Your task to perform on an android device: open app "Upside-Cash back on gas & food" (install if not already installed), go to login, and select forgot password Image 0: 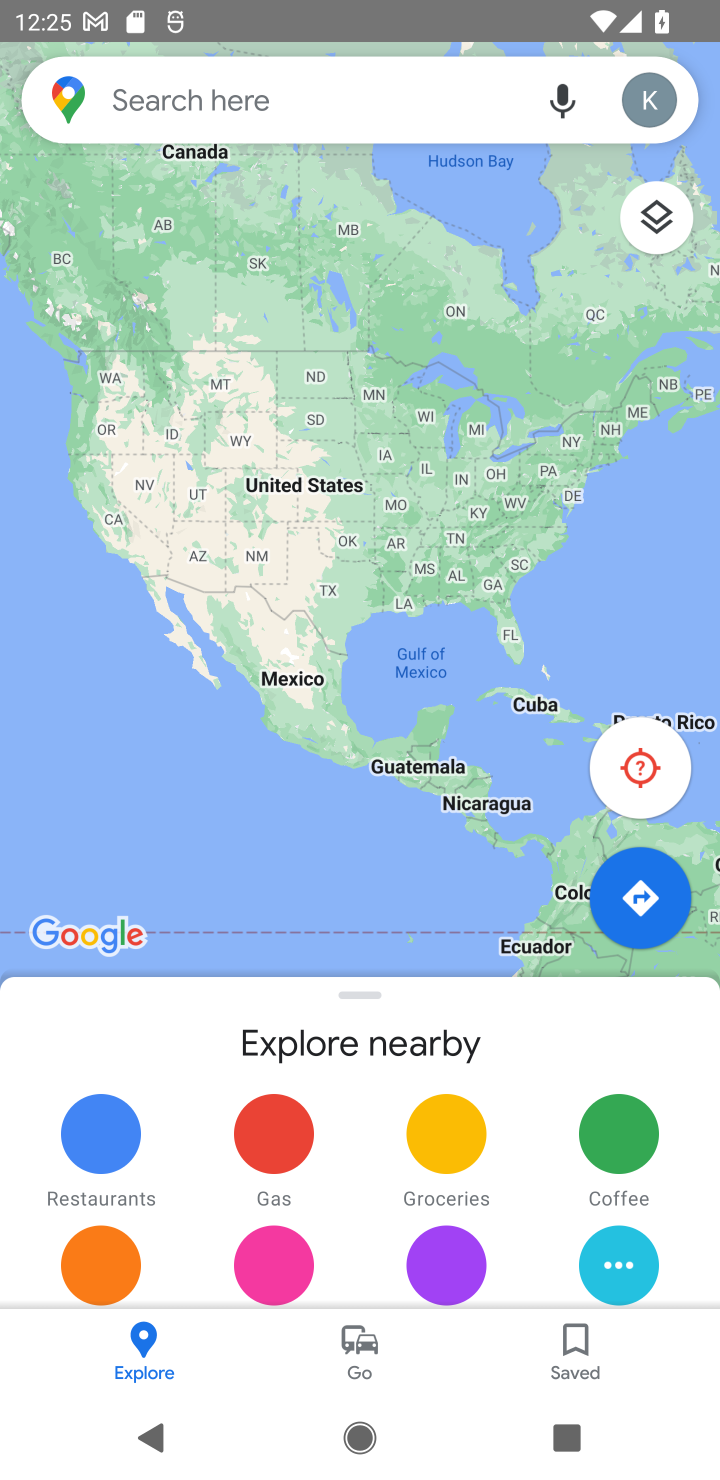
Step 0: press home button
Your task to perform on an android device: open app "Upside-Cash back on gas & food" (install if not already installed), go to login, and select forgot password Image 1: 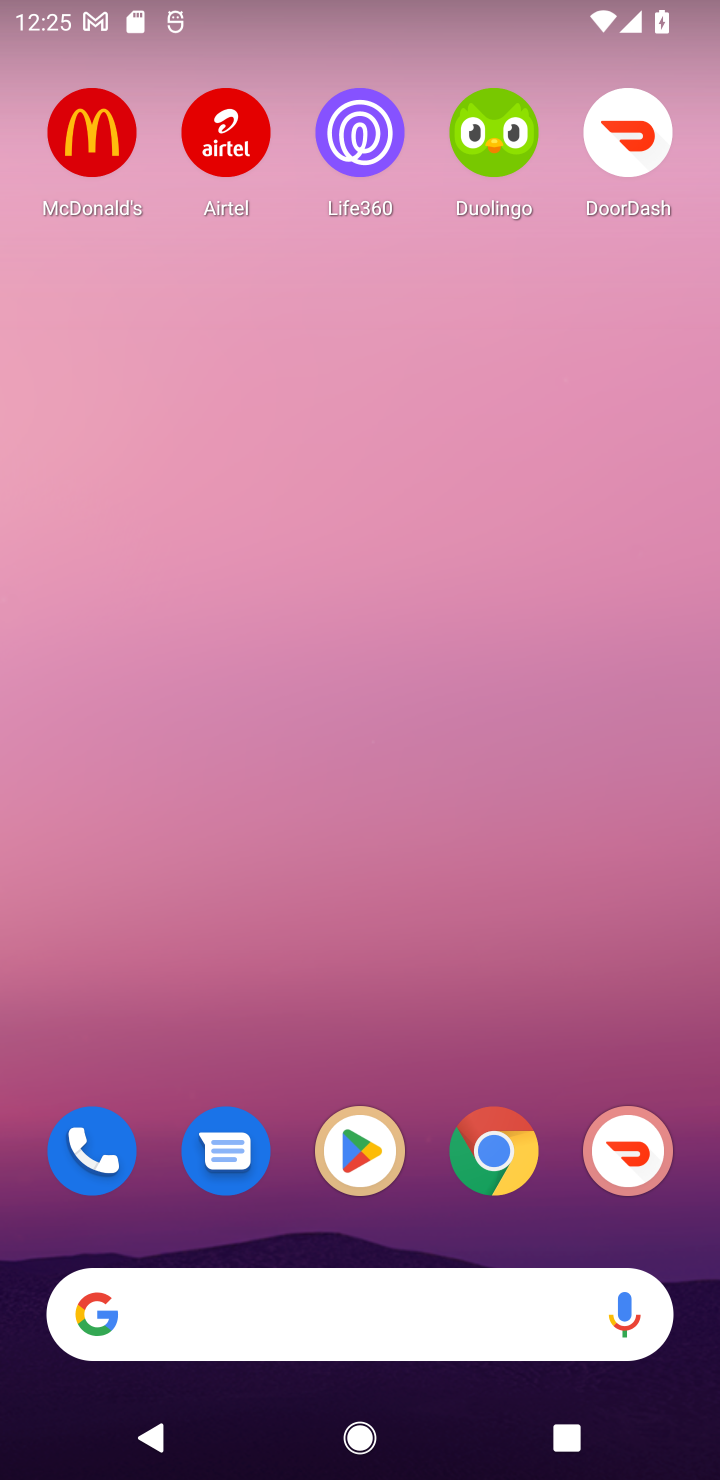
Step 1: click (356, 1153)
Your task to perform on an android device: open app "Upside-Cash back on gas & food" (install if not already installed), go to login, and select forgot password Image 2: 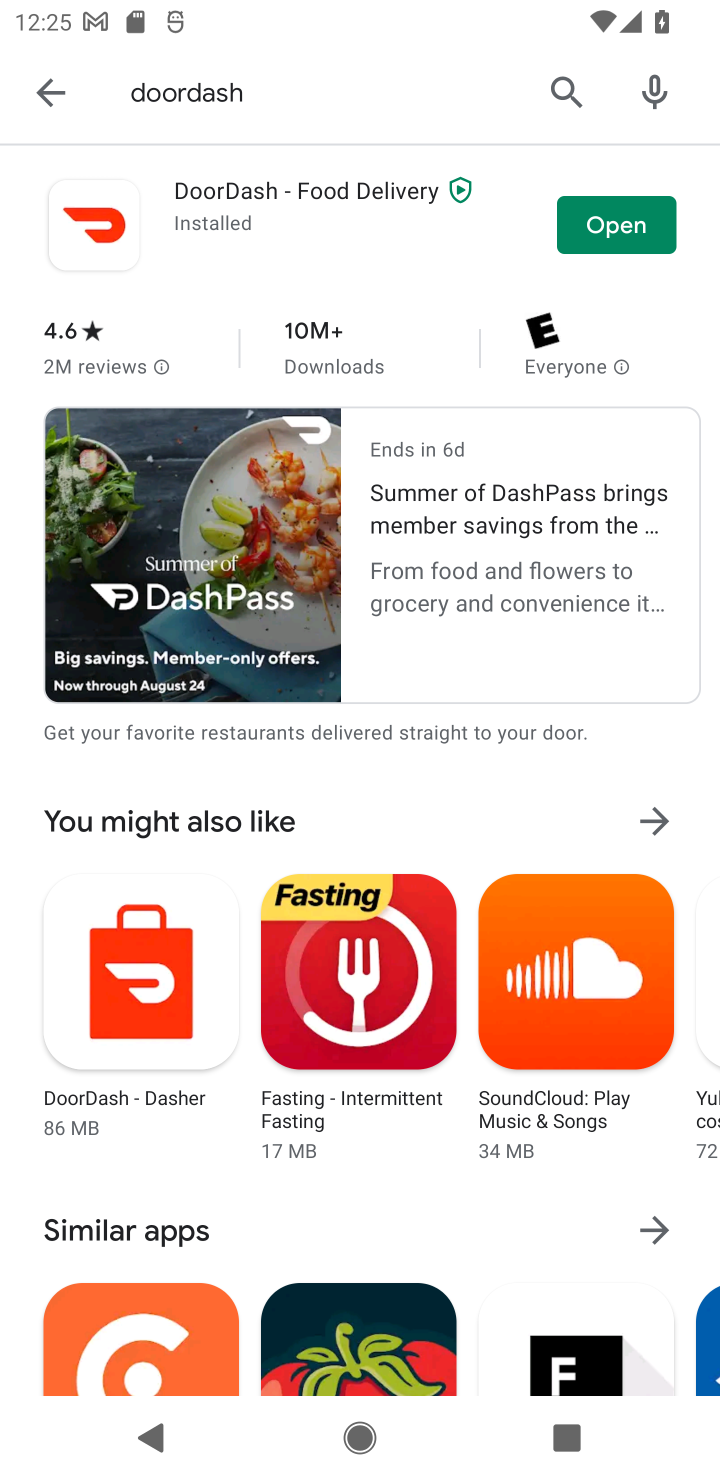
Step 2: click (40, 87)
Your task to perform on an android device: open app "Upside-Cash back on gas & food" (install if not already installed), go to login, and select forgot password Image 3: 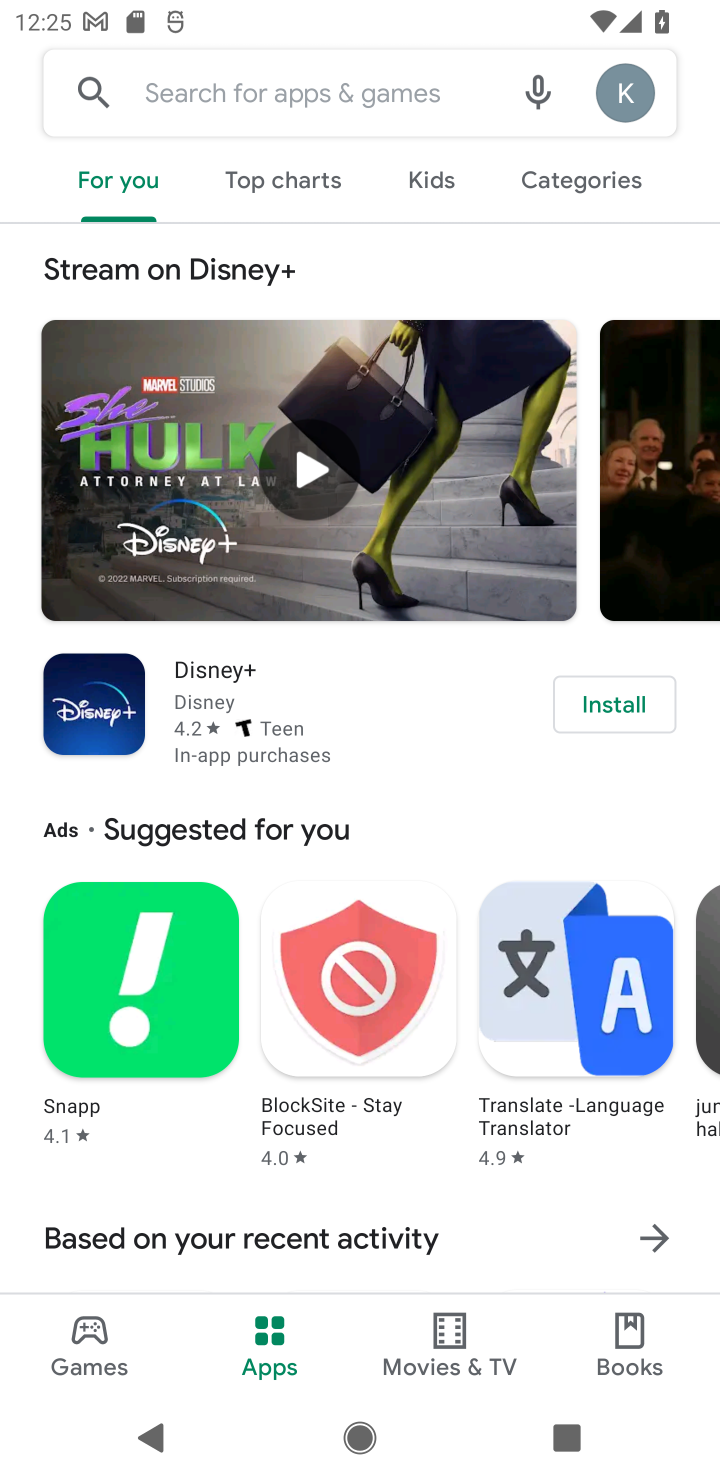
Step 3: click (224, 103)
Your task to perform on an android device: open app "Upside-Cash back on gas & food" (install if not already installed), go to login, and select forgot password Image 4: 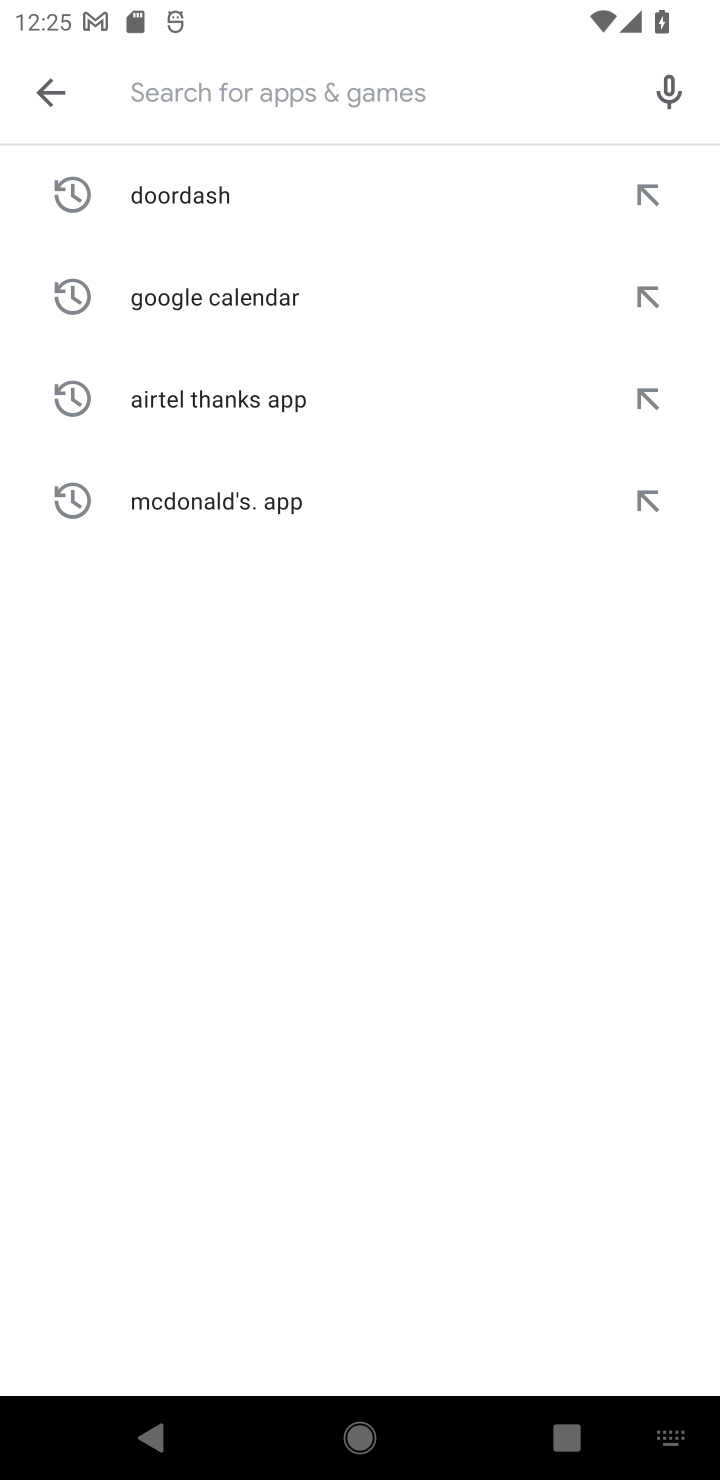
Step 4: type "Upside-Cash back on gas & food"
Your task to perform on an android device: open app "Upside-Cash back on gas & food" (install if not already installed), go to login, and select forgot password Image 5: 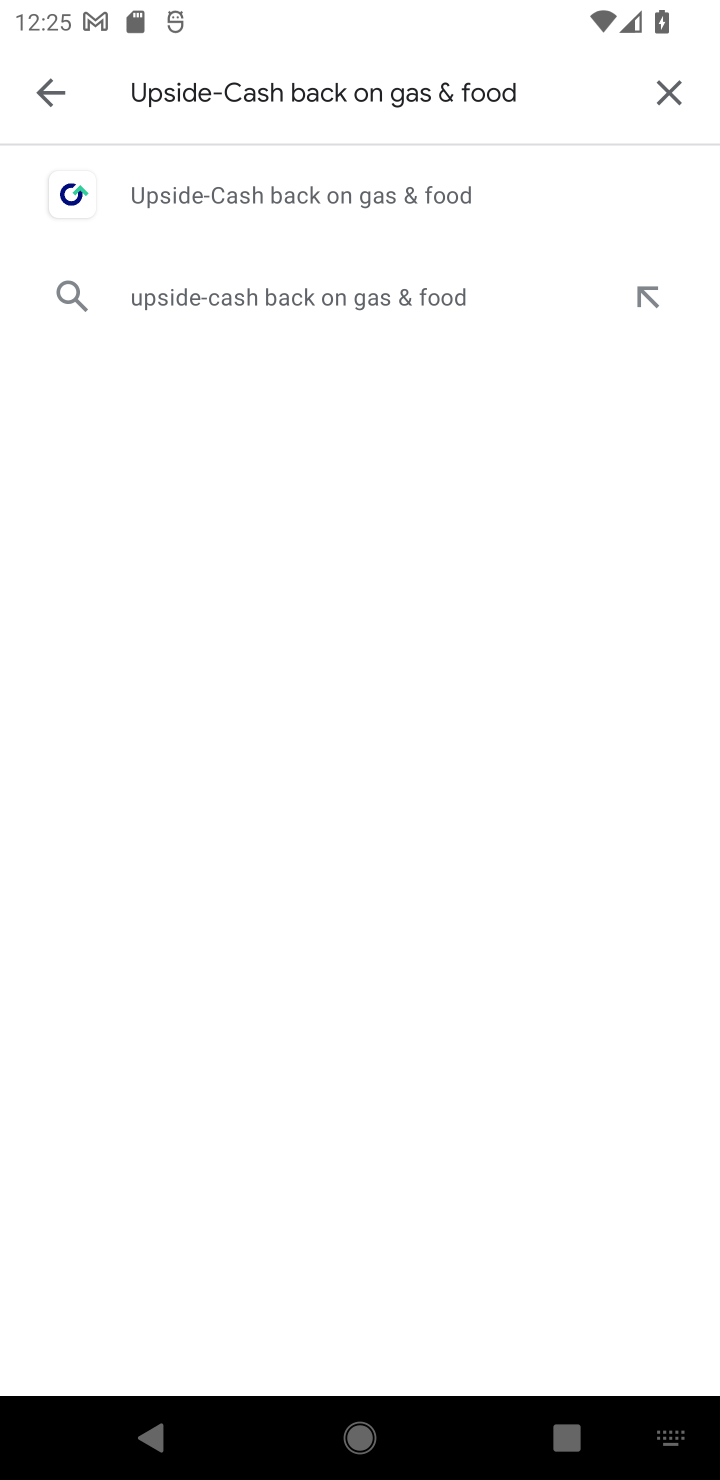
Step 5: click (339, 189)
Your task to perform on an android device: open app "Upside-Cash back on gas & food" (install if not already installed), go to login, and select forgot password Image 6: 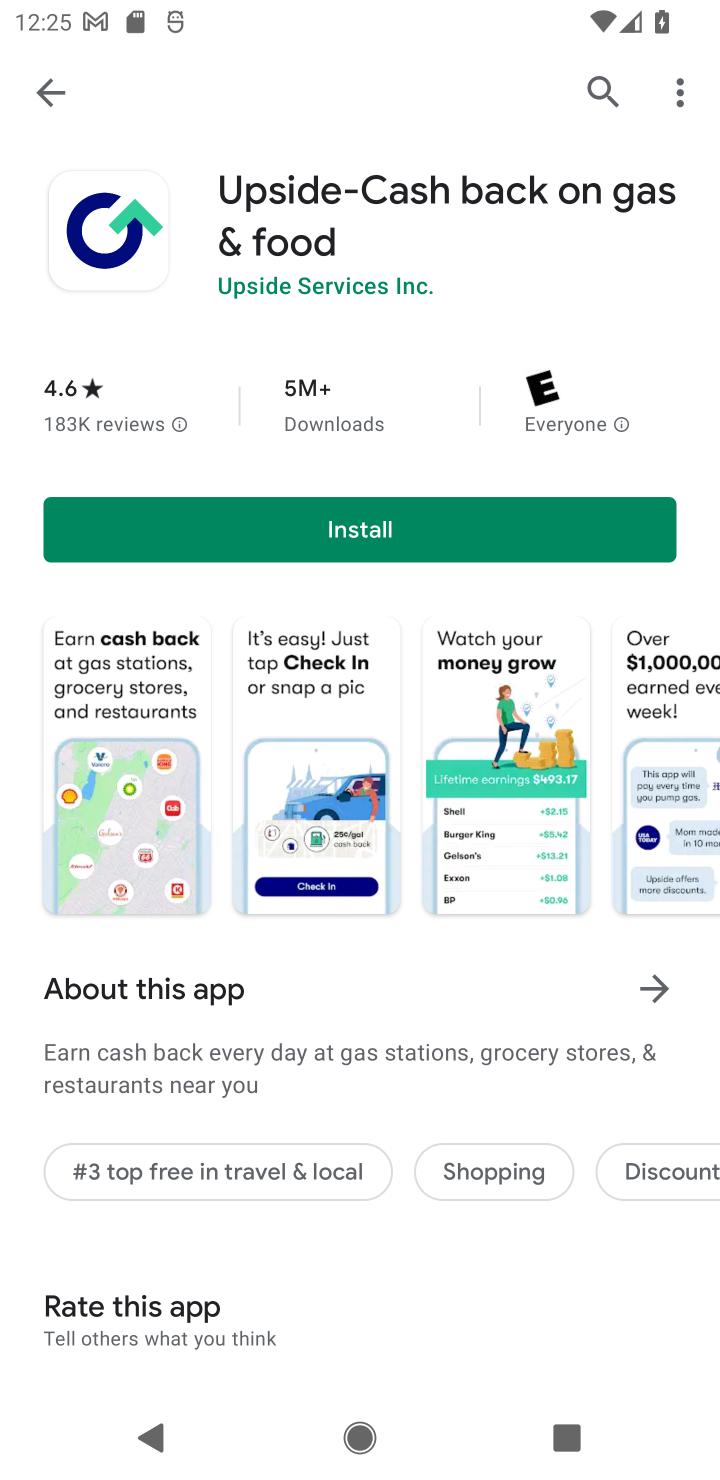
Step 6: click (352, 521)
Your task to perform on an android device: open app "Upside-Cash back on gas & food" (install if not already installed), go to login, and select forgot password Image 7: 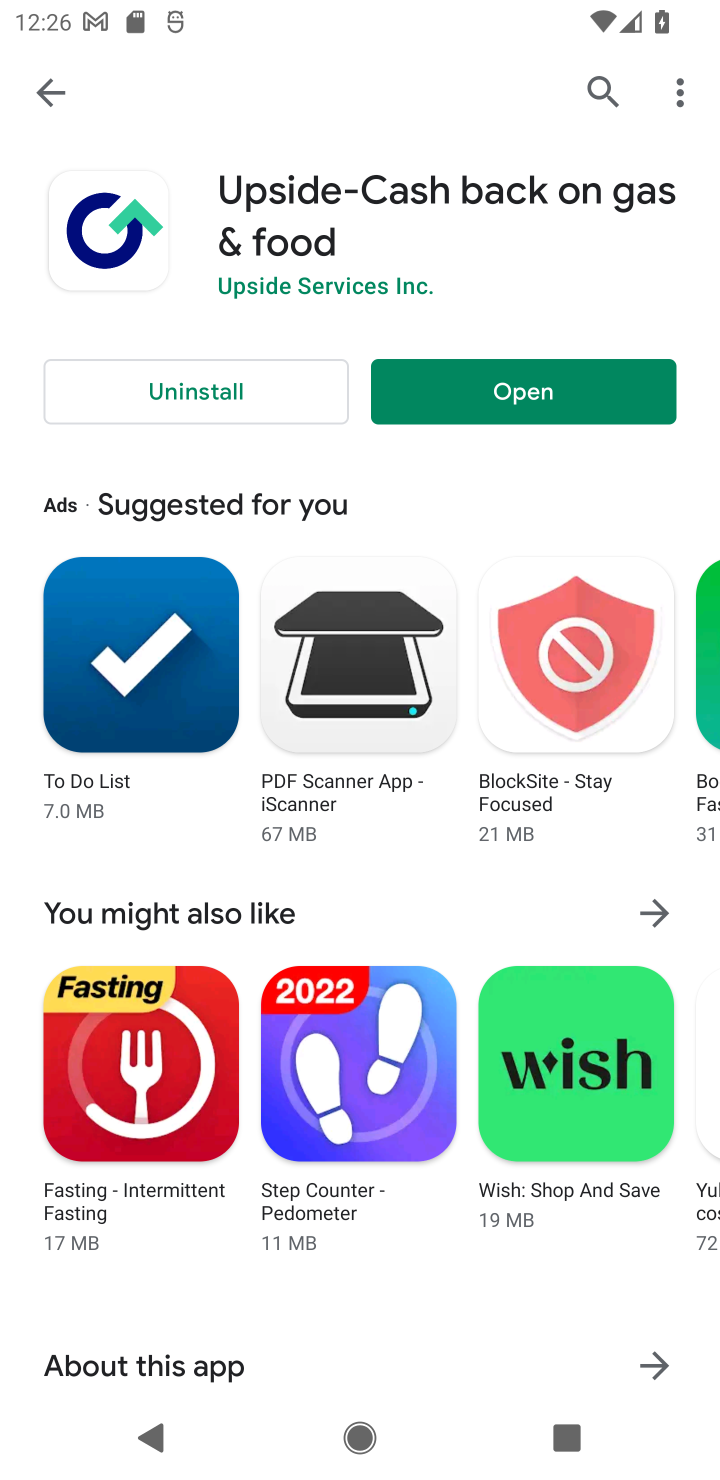
Step 7: click (504, 386)
Your task to perform on an android device: open app "Upside-Cash back on gas & food" (install if not already installed), go to login, and select forgot password Image 8: 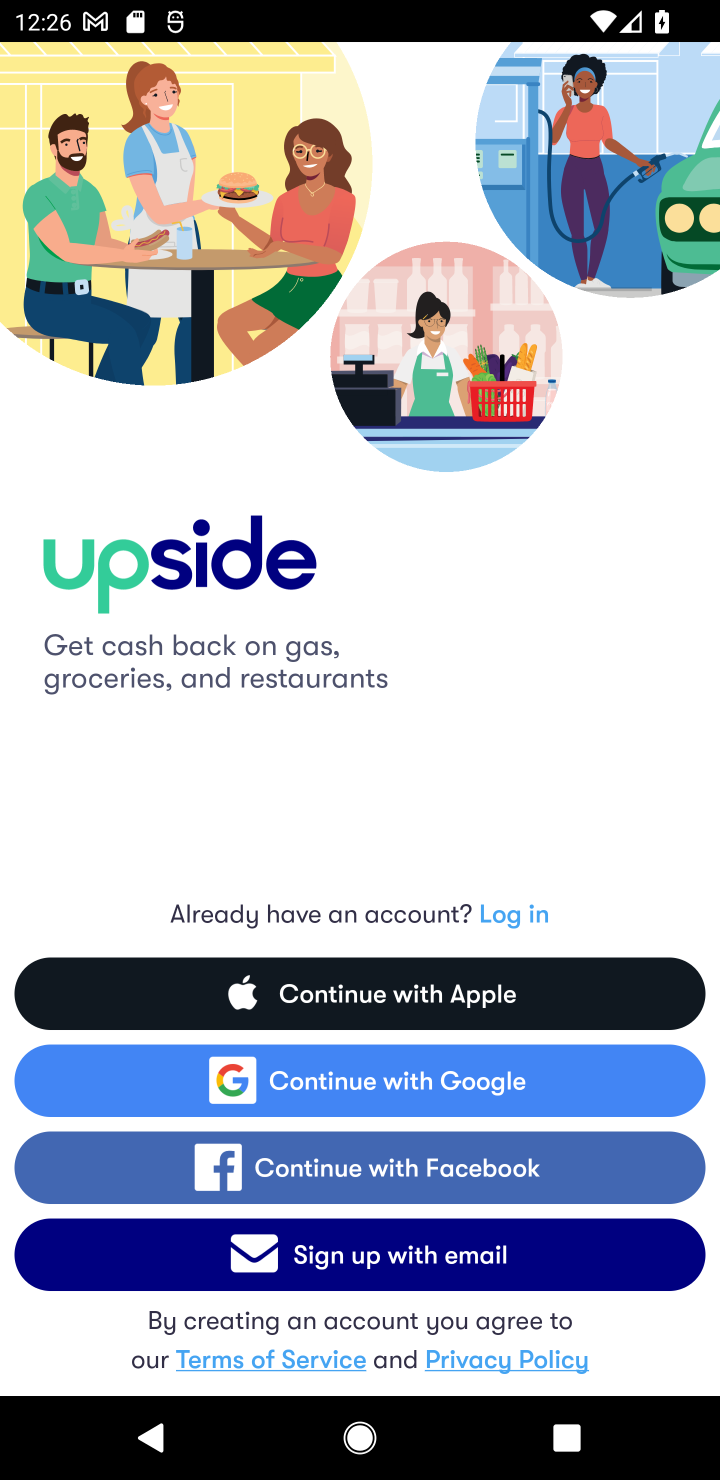
Step 8: click (389, 1254)
Your task to perform on an android device: open app "Upside-Cash back on gas & food" (install if not already installed), go to login, and select forgot password Image 9: 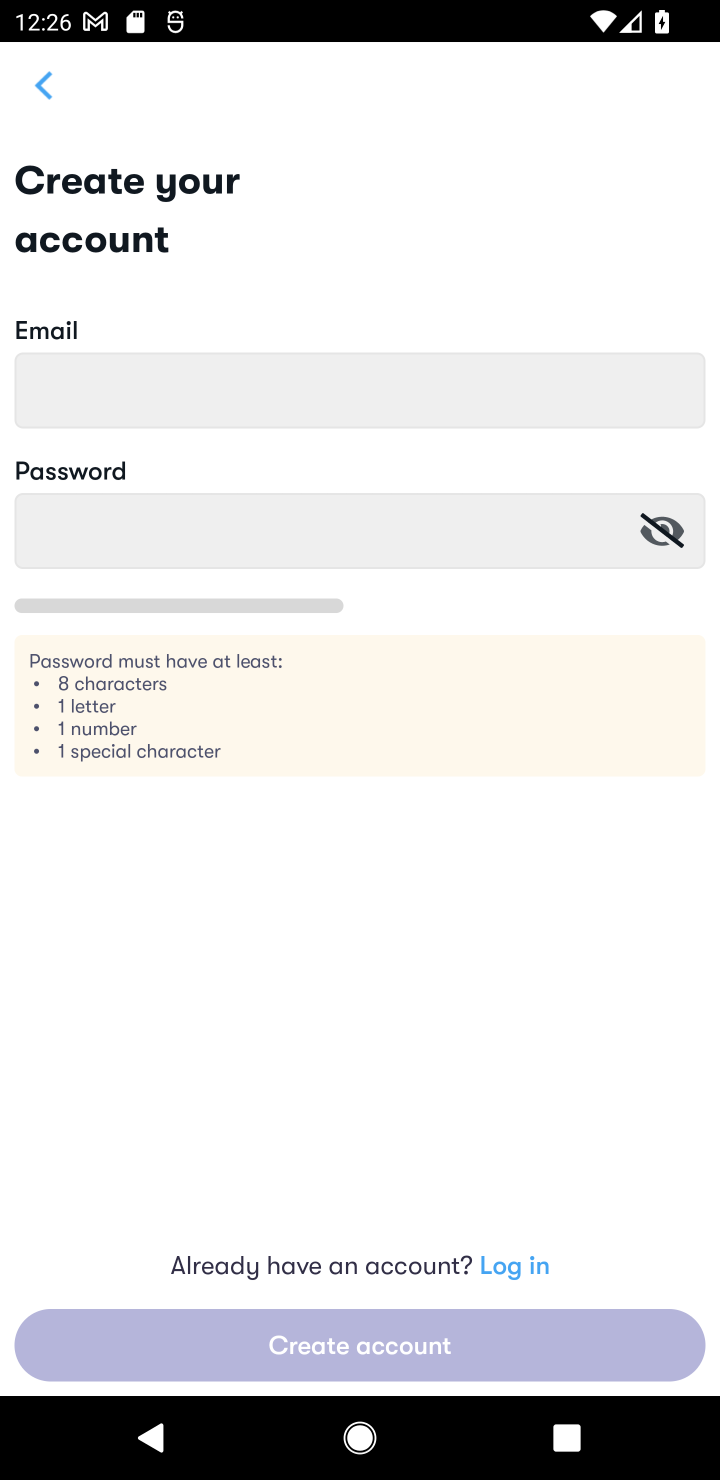
Step 9: click (536, 1277)
Your task to perform on an android device: open app "Upside-Cash back on gas & food" (install if not already installed), go to login, and select forgot password Image 10: 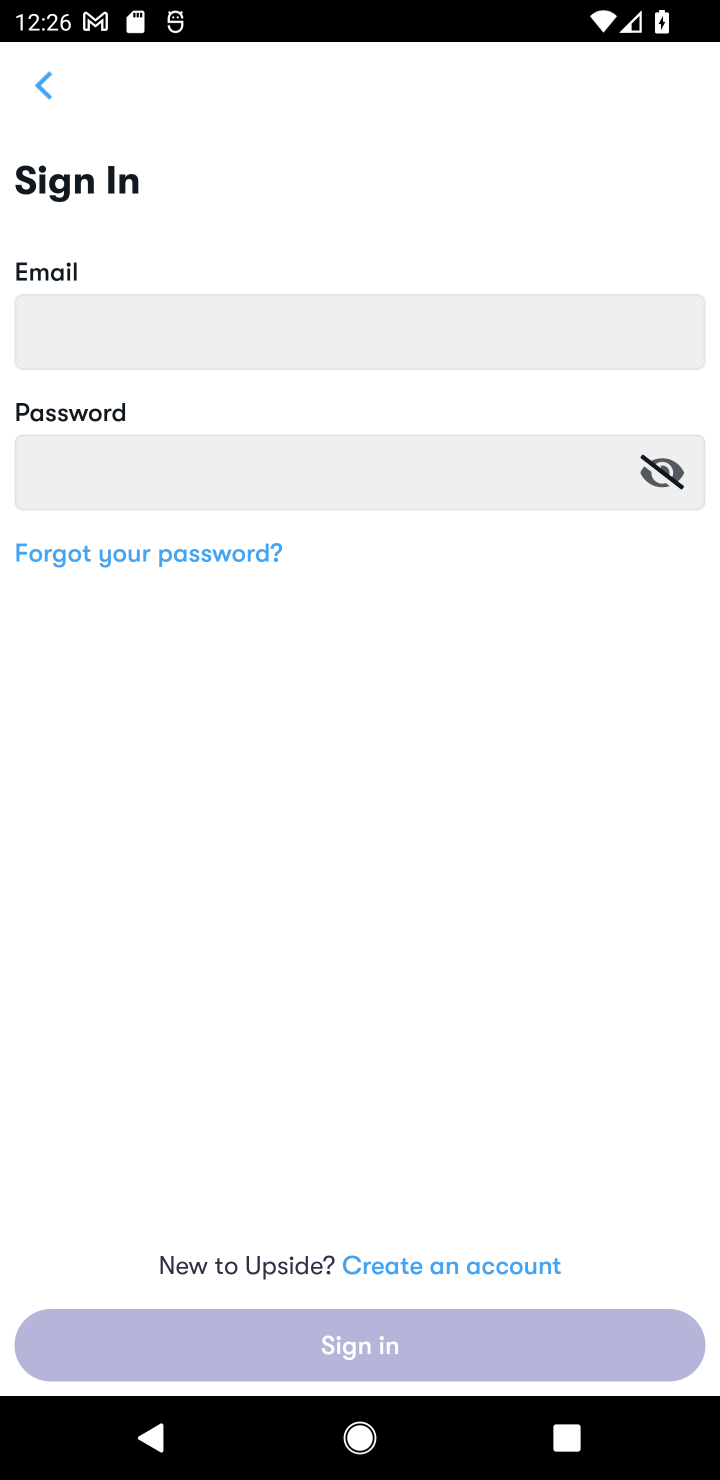
Step 10: click (213, 558)
Your task to perform on an android device: open app "Upside-Cash back on gas & food" (install if not already installed), go to login, and select forgot password Image 11: 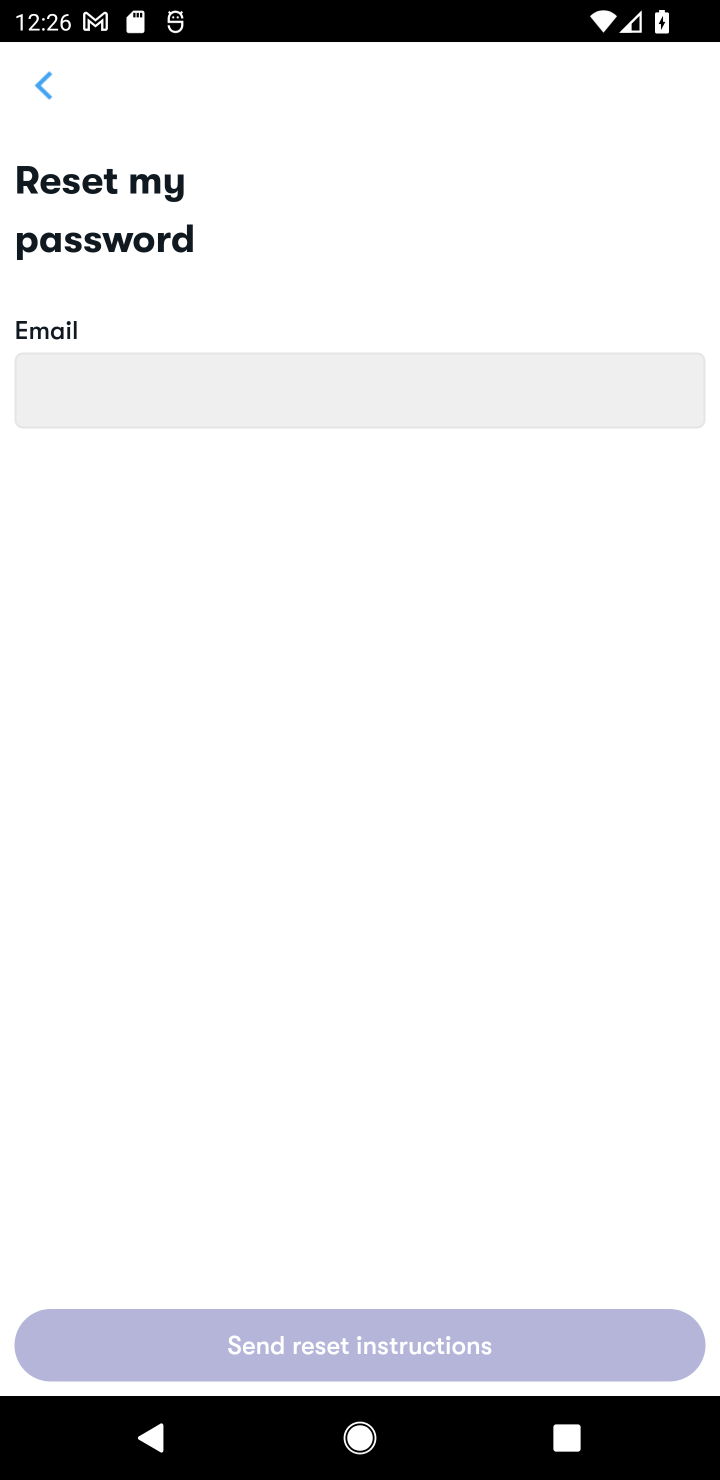
Step 11: task complete